Your task to perform on an android device: What is the news today? Image 0: 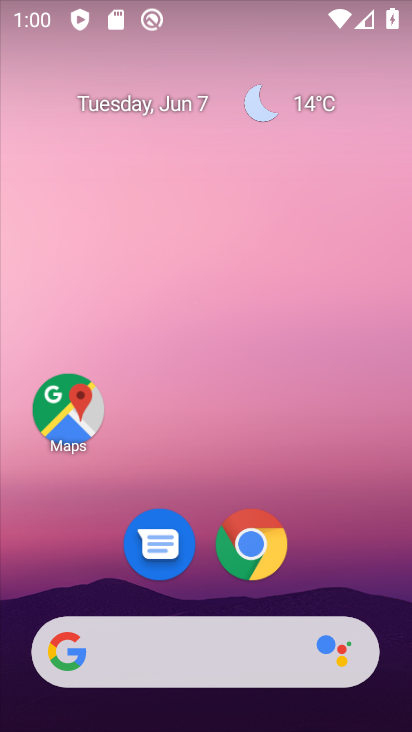
Step 0: drag from (13, 269) to (411, 284)
Your task to perform on an android device: What is the news today? Image 1: 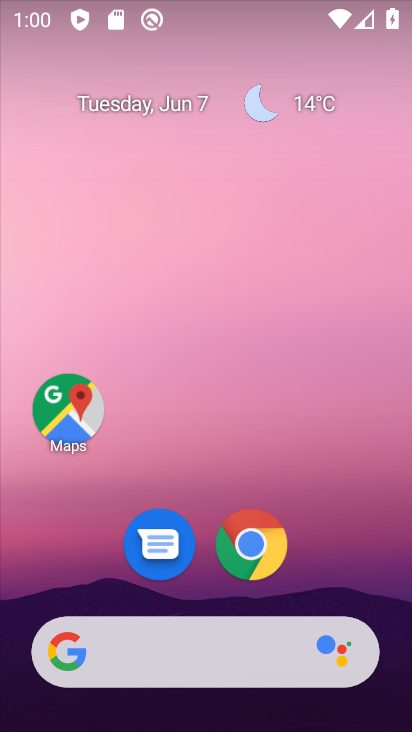
Step 1: task complete